Your task to perform on an android device: What's the weather going to be tomorrow? Image 0: 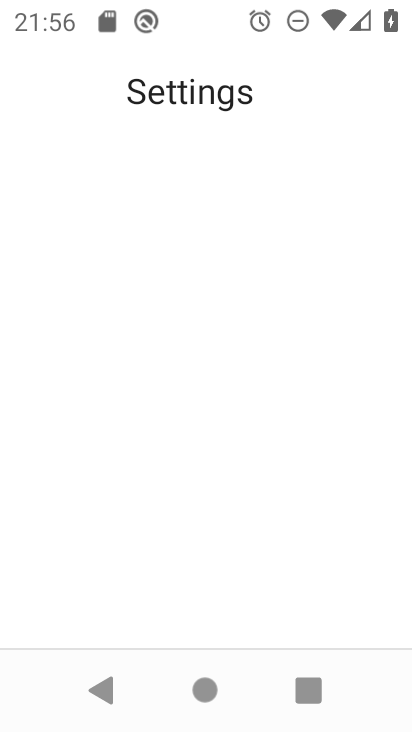
Step 0: press home button
Your task to perform on an android device: What's the weather going to be tomorrow? Image 1: 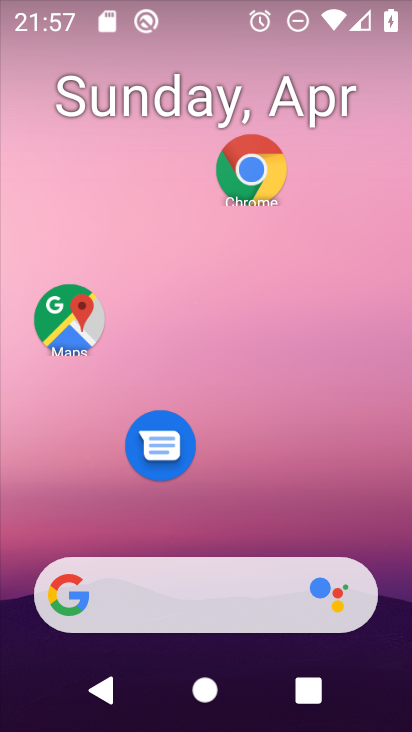
Step 1: drag from (250, 507) to (318, 16)
Your task to perform on an android device: What's the weather going to be tomorrow? Image 2: 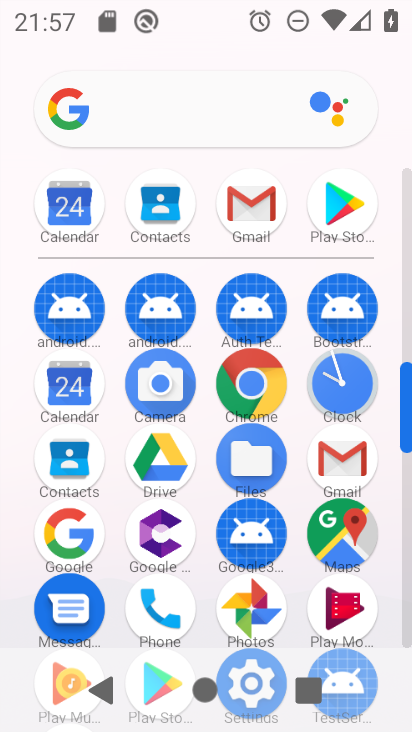
Step 2: click (75, 538)
Your task to perform on an android device: What's the weather going to be tomorrow? Image 3: 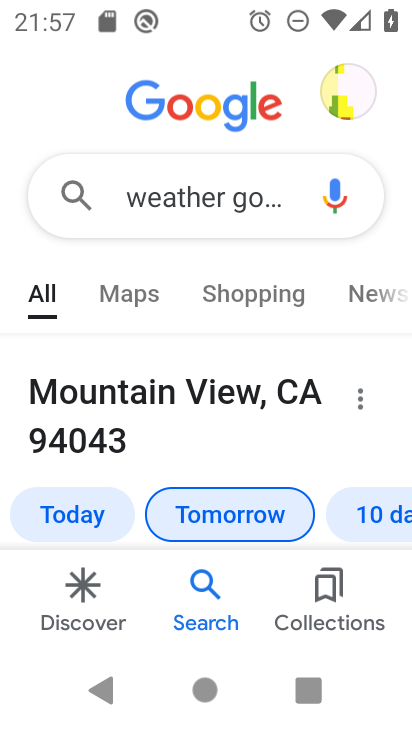
Step 3: click (267, 208)
Your task to perform on an android device: What's the weather going to be tomorrow? Image 4: 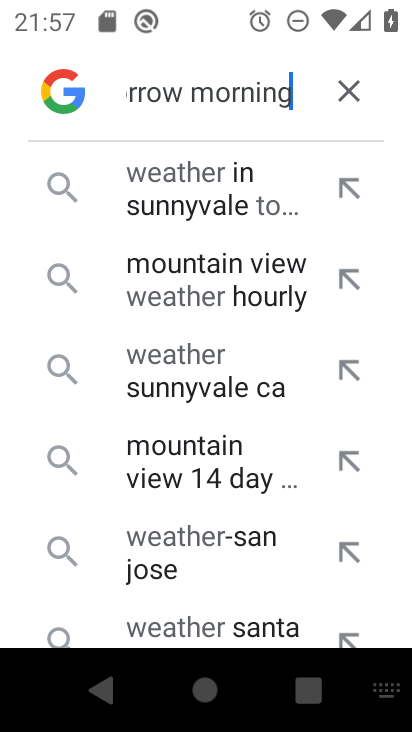
Step 4: click (348, 96)
Your task to perform on an android device: What's the weather going to be tomorrow? Image 5: 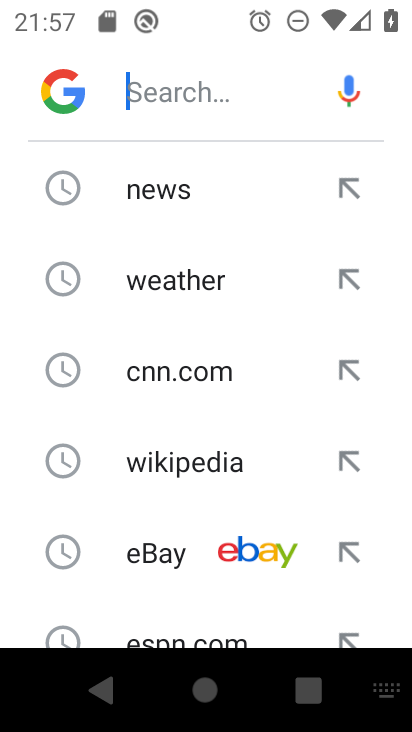
Step 5: type "whats weather going to be tomorrow"
Your task to perform on an android device: What's the weather going to be tomorrow? Image 6: 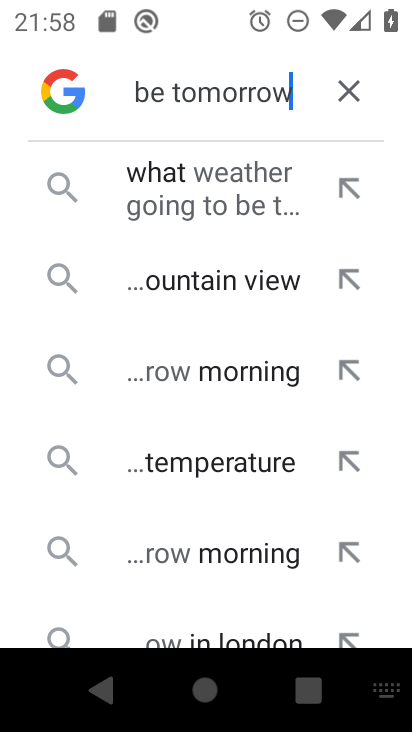
Step 6: click (215, 165)
Your task to perform on an android device: What's the weather going to be tomorrow? Image 7: 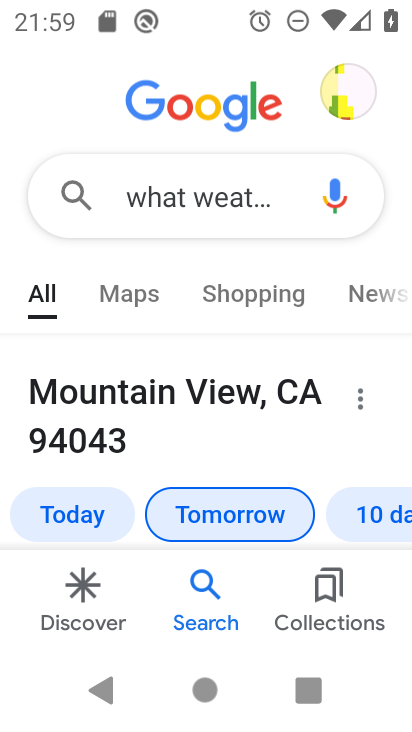
Step 7: task complete